Your task to perform on an android device: Go to location settings Image 0: 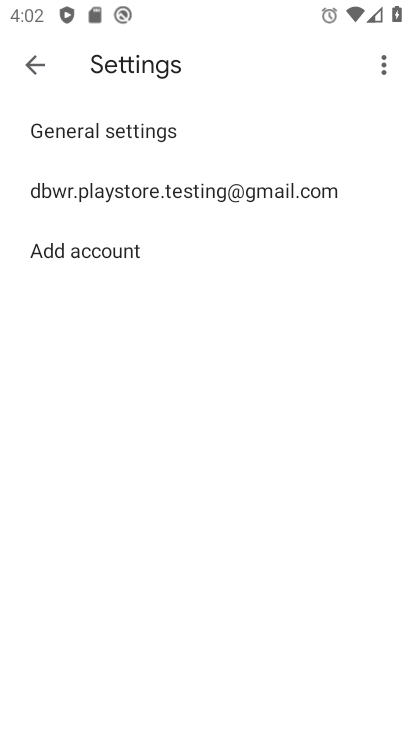
Step 0: click (88, 127)
Your task to perform on an android device: Go to location settings Image 1: 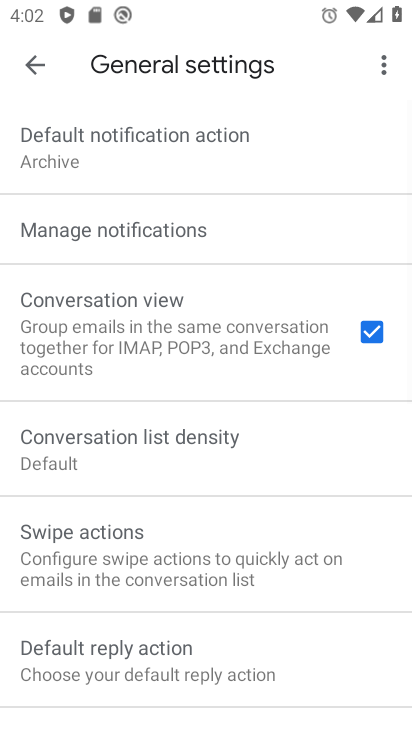
Step 1: click (38, 70)
Your task to perform on an android device: Go to location settings Image 2: 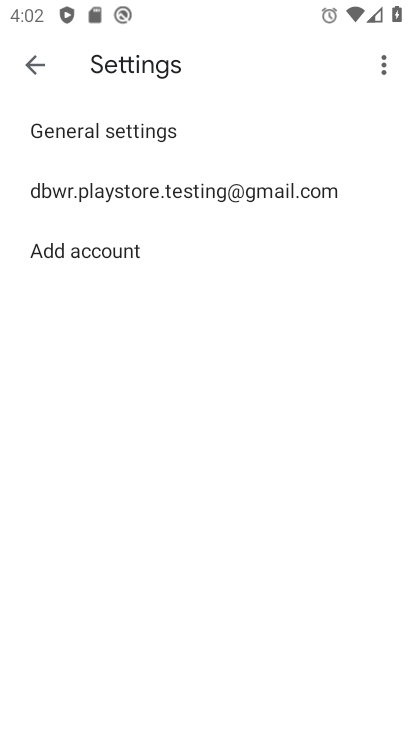
Step 2: click (38, 69)
Your task to perform on an android device: Go to location settings Image 3: 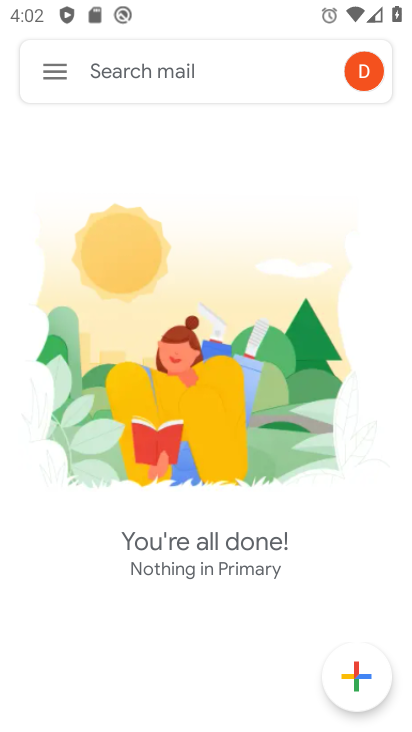
Step 3: press home button
Your task to perform on an android device: Go to location settings Image 4: 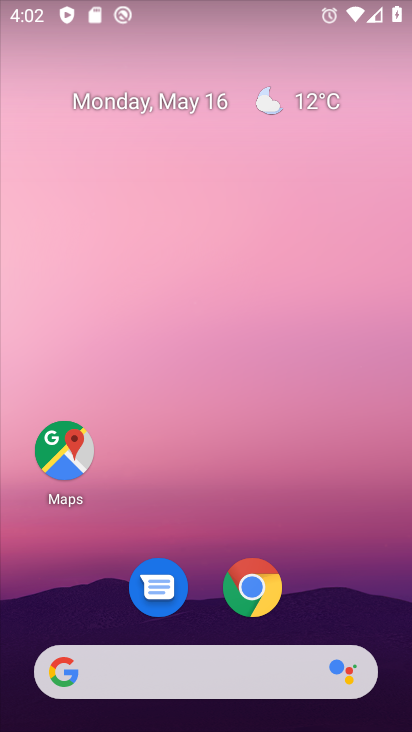
Step 4: drag from (384, 667) to (375, 365)
Your task to perform on an android device: Go to location settings Image 5: 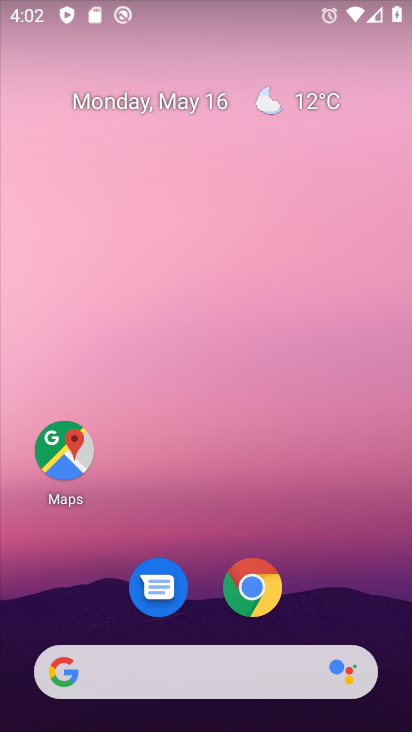
Step 5: click (331, 245)
Your task to perform on an android device: Go to location settings Image 6: 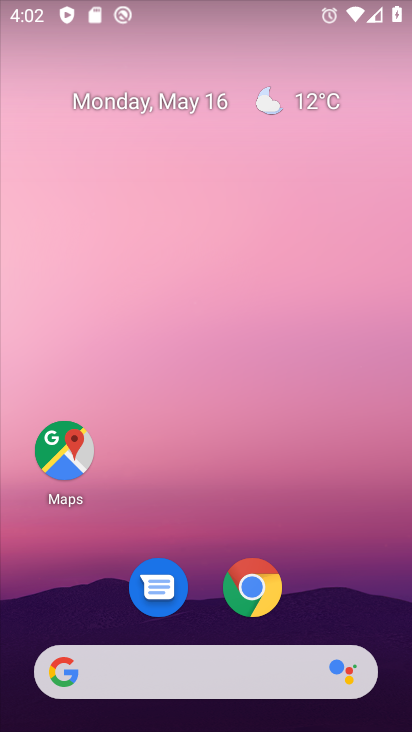
Step 6: drag from (385, 420) to (358, 210)
Your task to perform on an android device: Go to location settings Image 7: 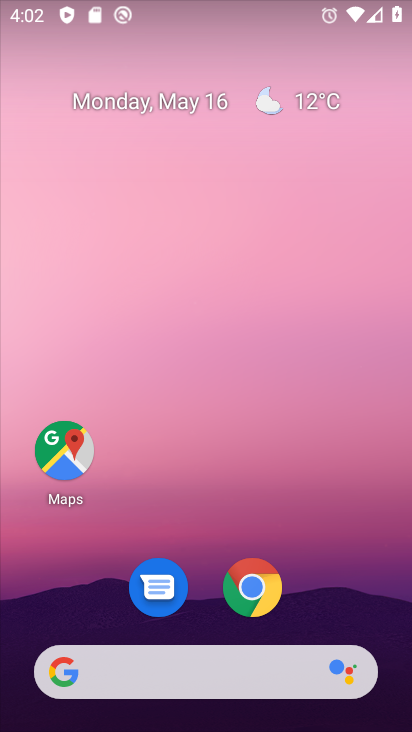
Step 7: click (365, 226)
Your task to perform on an android device: Go to location settings Image 8: 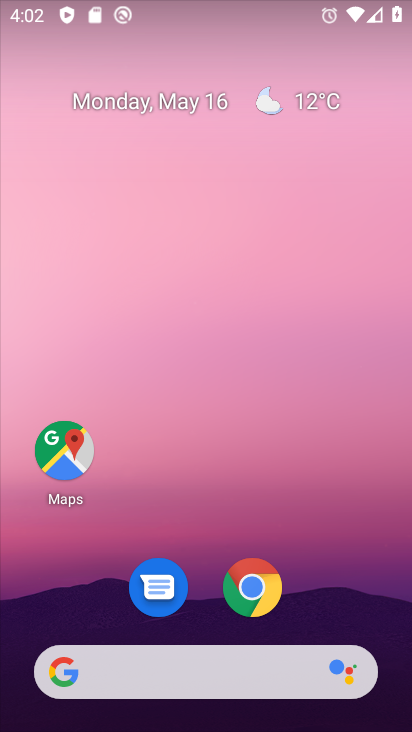
Step 8: drag from (389, 670) to (343, 137)
Your task to perform on an android device: Go to location settings Image 9: 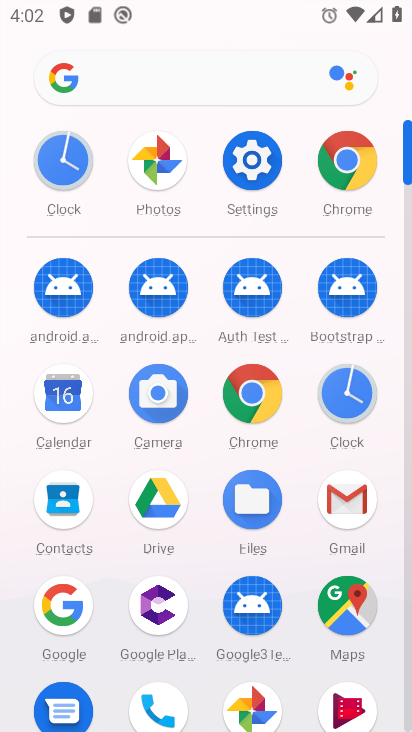
Step 9: click (251, 173)
Your task to perform on an android device: Go to location settings Image 10: 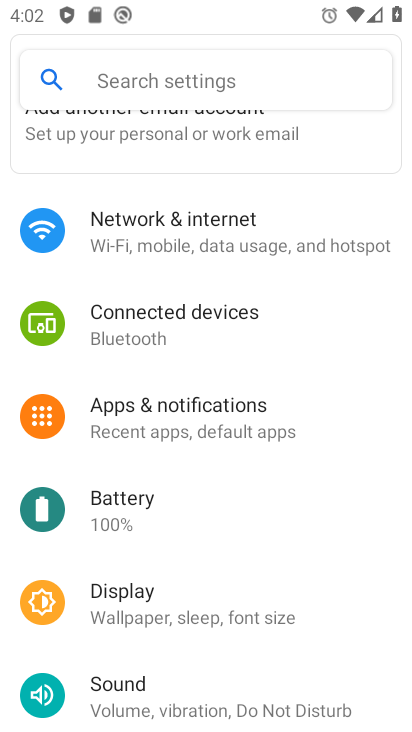
Step 10: drag from (345, 472) to (323, 349)
Your task to perform on an android device: Go to location settings Image 11: 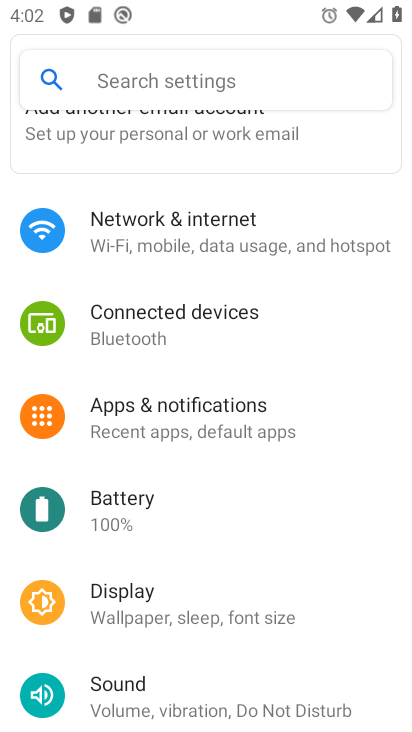
Step 11: drag from (371, 619) to (351, 363)
Your task to perform on an android device: Go to location settings Image 12: 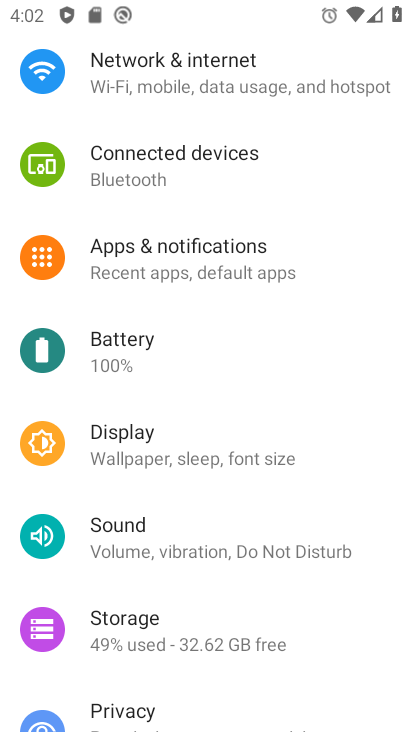
Step 12: drag from (337, 402) to (326, 337)
Your task to perform on an android device: Go to location settings Image 13: 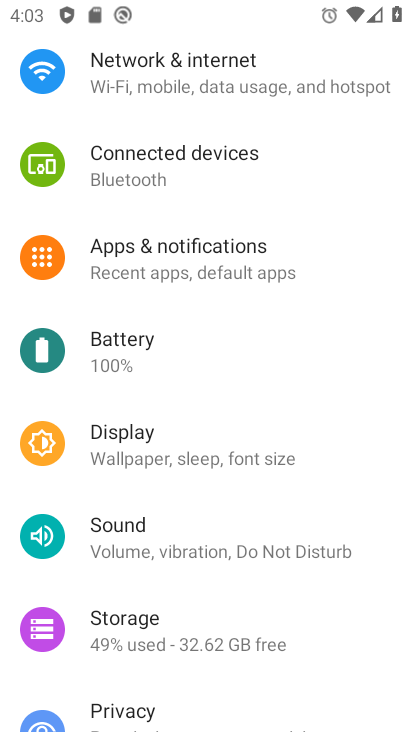
Step 13: drag from (360, 588) to (344, 344)
Your task to perform on an android device: Go to location settings Image 14: 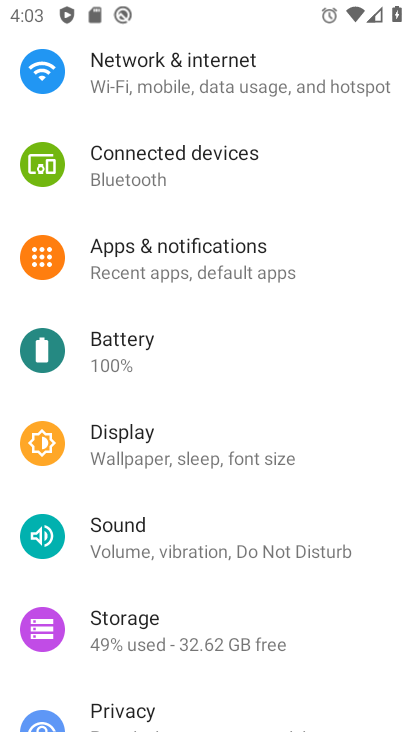
Step 14: drag from (388, 674) to (406, 269)
Your task to perform on an android device: Go to location settings Image 15: 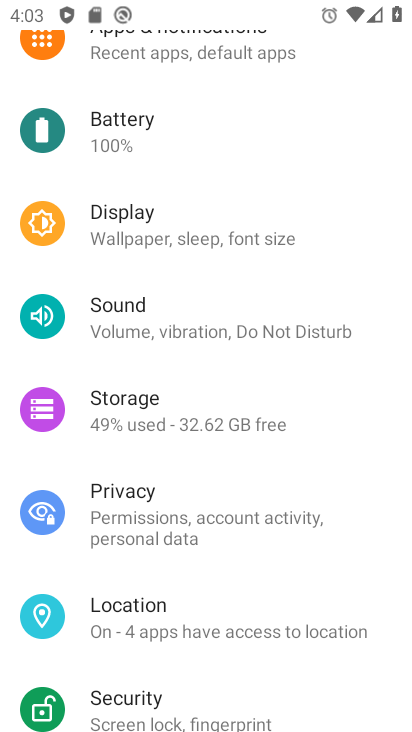
Step 15: click (127, 613)
Your task to perform on an android device: Go to location settings Image 16: 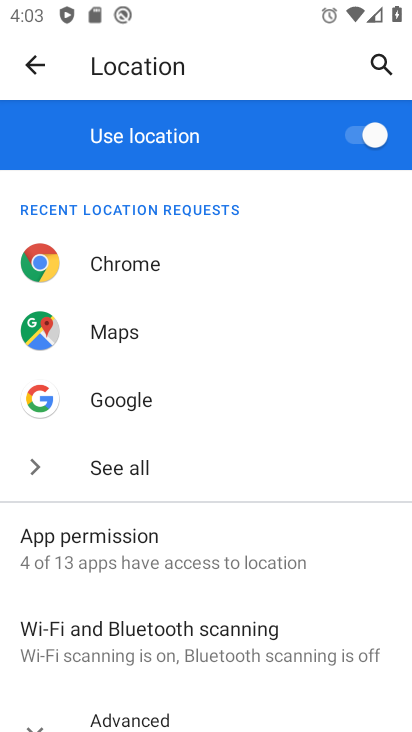
Step 16: task complete